Your task to perform on an android device: Open the web browser Image 0: 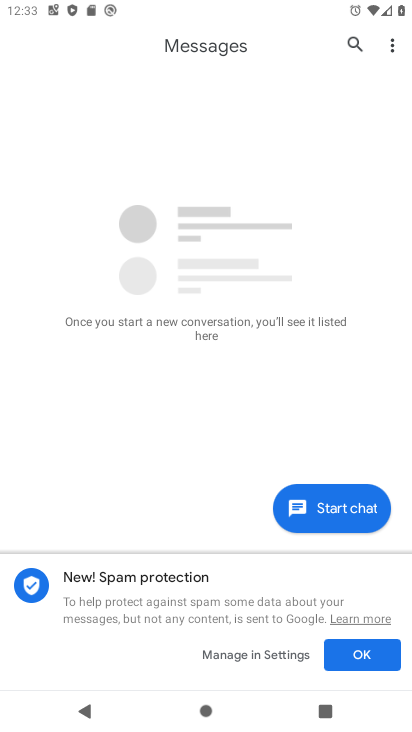
Step 0: press home button
Your task to perform on an android device: Open the web browser Image 1: 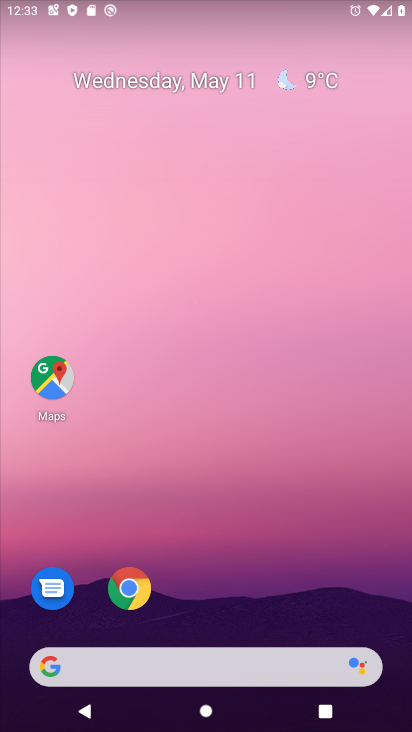
Step 1: click (124, 596)
Your task to perform on an android device: Open the web browser Image 2: 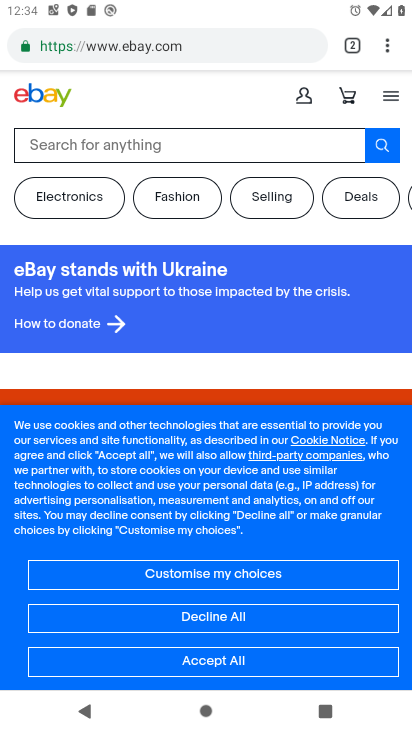
Step 2: task complete